Your task to perform on an android device: Search for bose quietcomfort 35 on costco, select the first entry, and add it to the cart. Image 0: 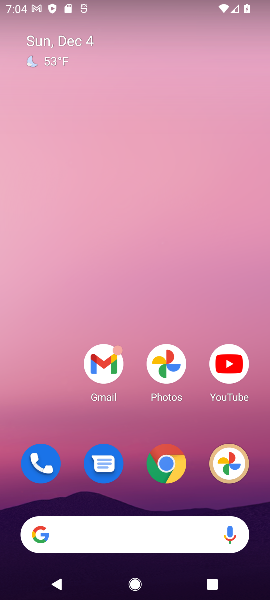
Step 0: click (163, 524)
Your task to perform on an android device: Search for bose quietcomfort 35 on costco, select the first entry, and add it to the cart. Image 1: 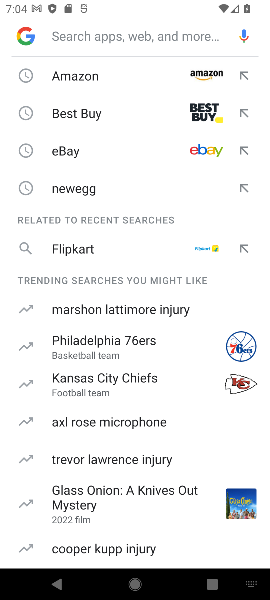
Step 1: type "costco.com"
Your task to perform on an android device: Search for bose quietcomfort 35 on costco, select the first entry, and add it to the cart. Image 2: 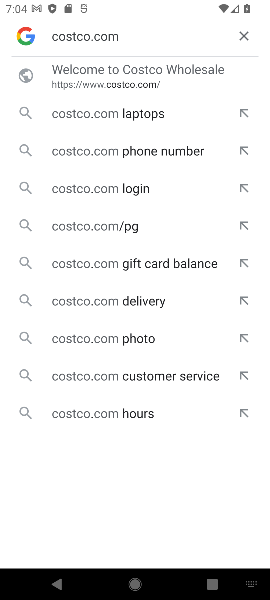
Step 2: click (78, 67)
Your task to perform on an android device: Search for bose quietcomfort 35 on costco, select the first entry, and add it to the cart. Image 3: 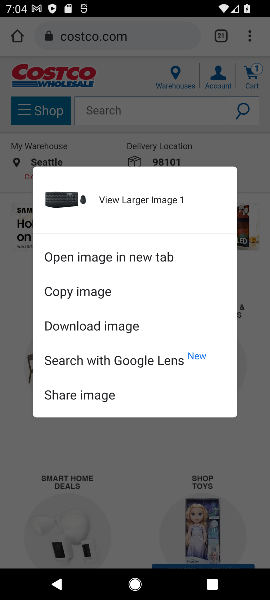
Step 3: click (164, 484)
Your task to perform on an android device: Search for bose quietcomfort 35 on costco, select the first entry, and add it to the cart. Image 4: 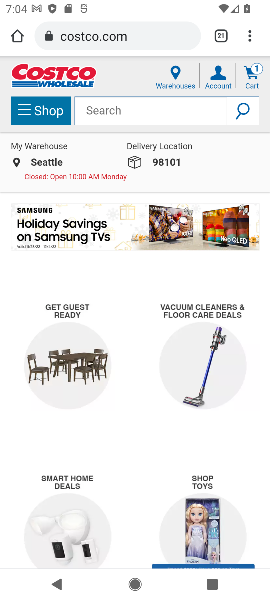
Step 4: task complete